Your task to perform on an android device: snooze an email in the gmail app Image 0: 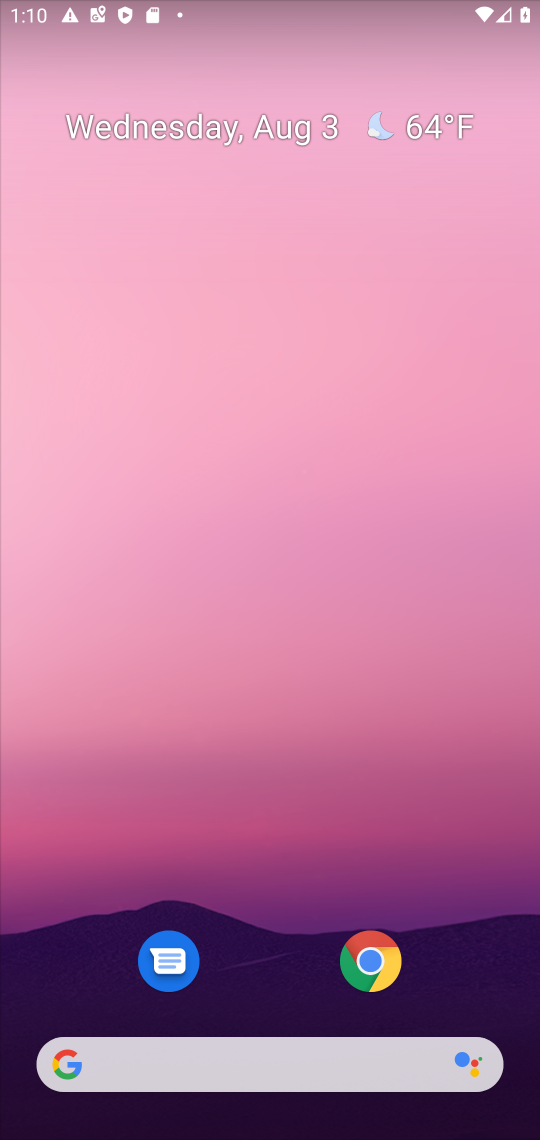
Step 0: drag from (279, 978) to (280, 141)
Your task to perform on an android device: snooze an email in the gmail app Image 1: 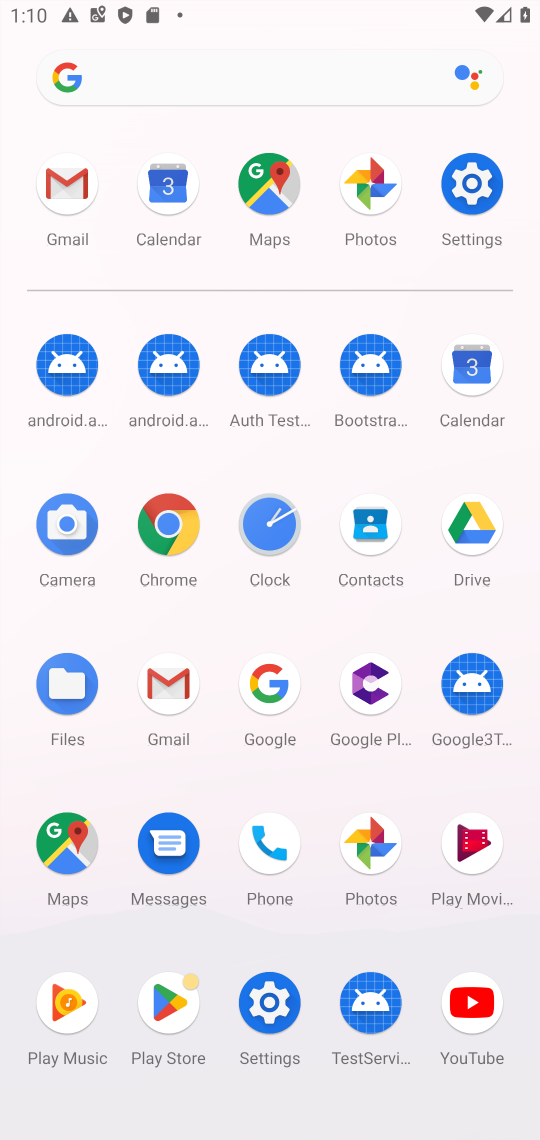
Step 1: click (61, 184)
Your task to perform on an android device: snooze an email in the gmail app Image 2: 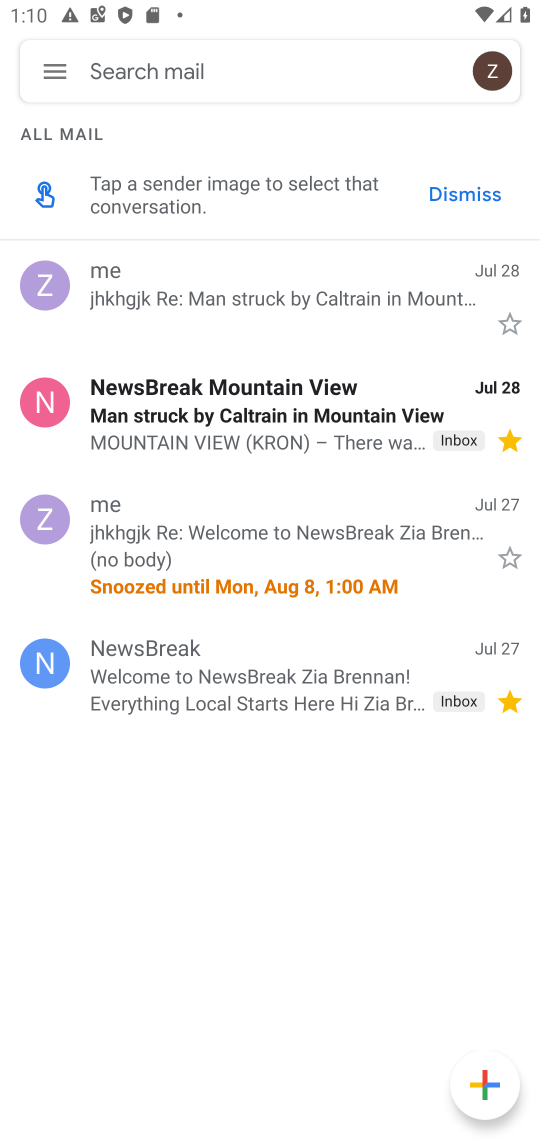
Step 2: click (193, 310)
Your task to perform on an android device: snooze an email in the gmail app Image 3: 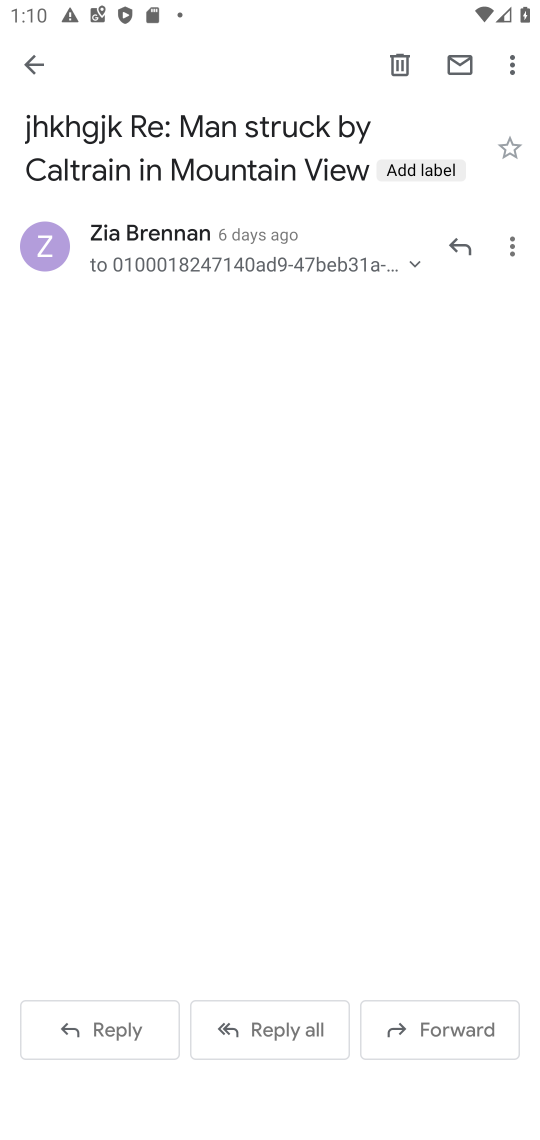
Step 3: click (512, 66)
Your task to perform on an android device: snooze an email in the gmail app Image 4: 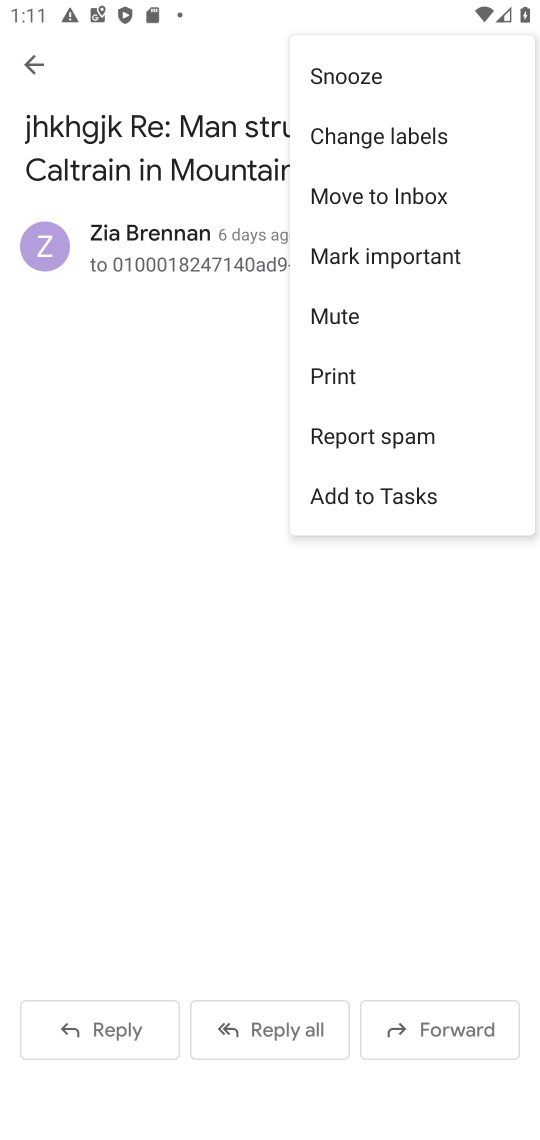
Step 4: click (331, 81)
Your task to perform on an android device: snooze an email in the gmail app Image 5: 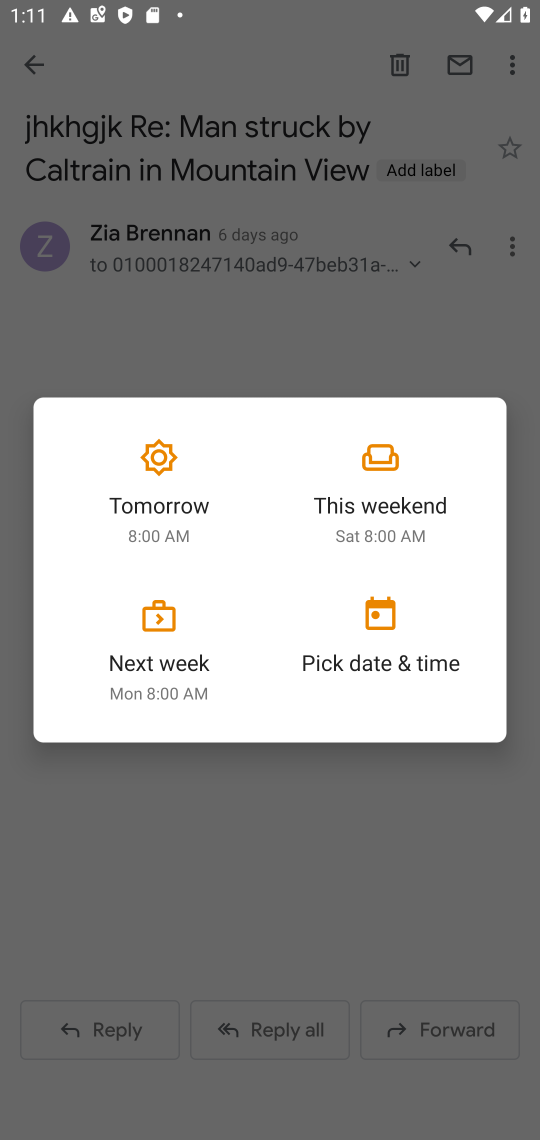
Step 5: click (165, 479)
Your task to perform on an android device: snooze an email in the gmail app Image 6: 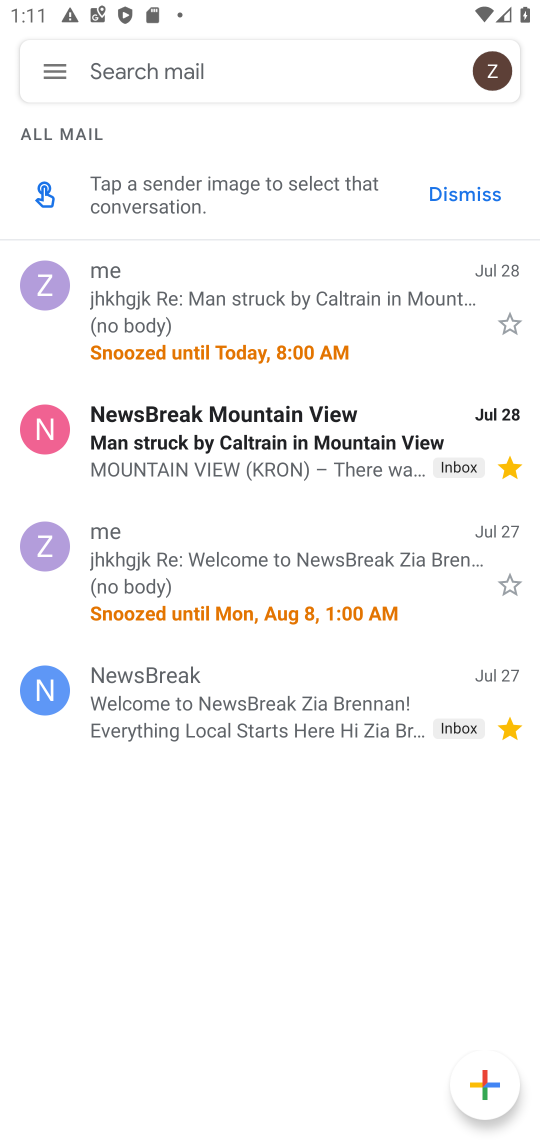
Step 6: task complete